Your task to perform on an android device: Search for Mexican restaurants on Maps Image 0: 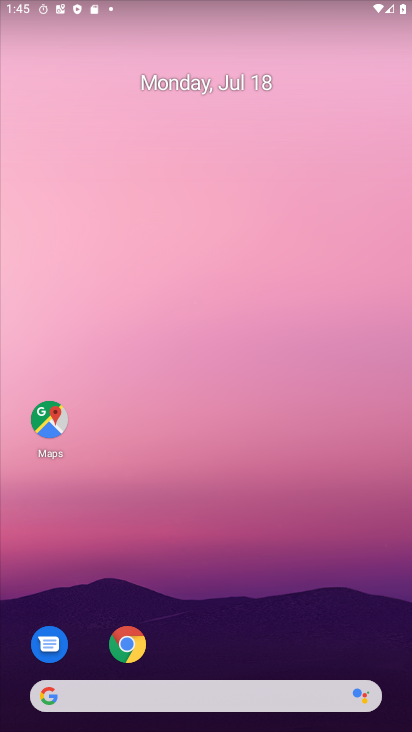
Step 0: click (53, 416)
Your task to perform on an android device: Search for Mexican restaurants on Maps Image 1: 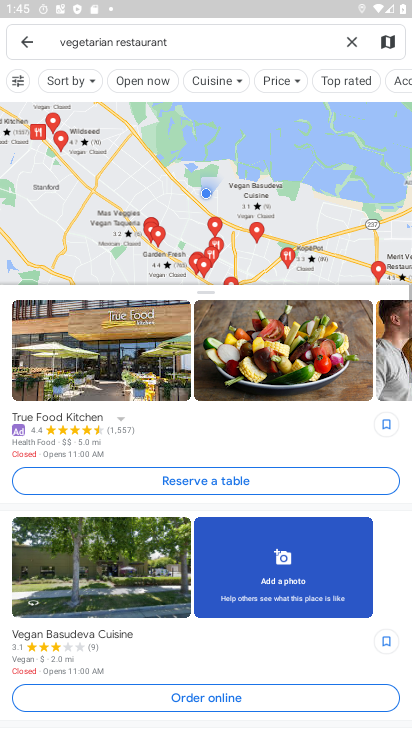
Step 1: click (315, 41)
Your task to perform on an android device: Search for Mexican restaurants on Maps Image 2: 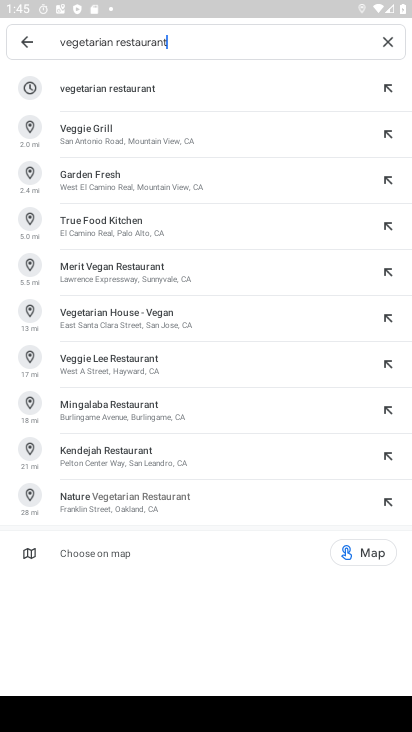
Step 2: click (393, 37)
Your task to perform on an android device: Search for Mexican restaurants on Maps Image 3: 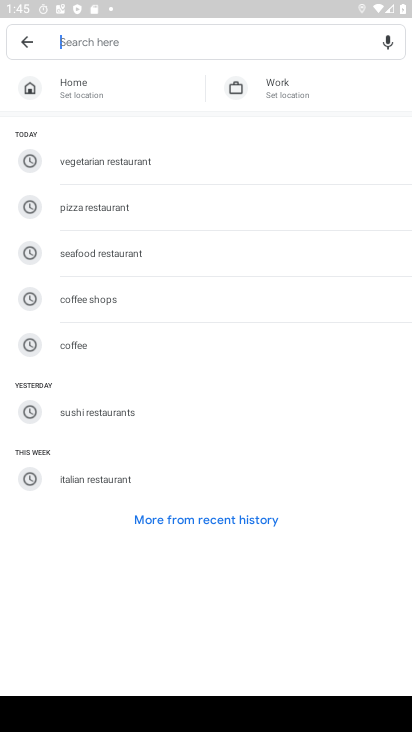
Step 3: type "mexican restaurants"
Your task to perform on an android device: Search for Mexican restaurants on Maps Image 4: 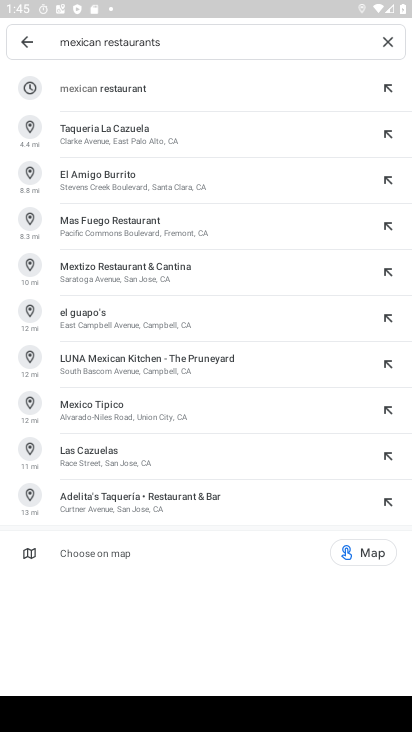
Step 4: click (192, 90)
Your task to perform on an android device: Search for Mexican restaurants on Maps Image 5: 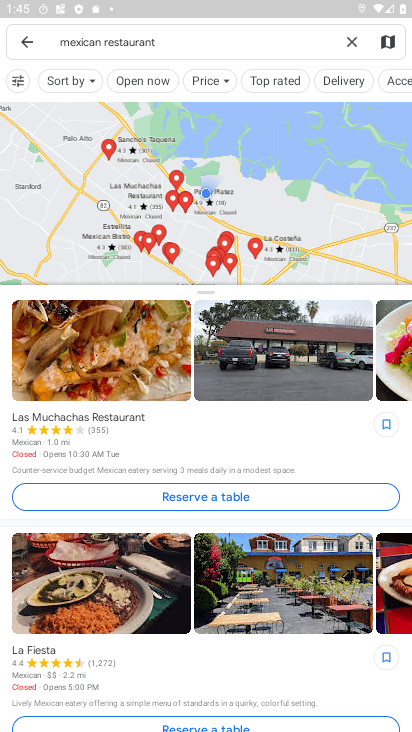
Step 5: task complete